Your task to perform on an android device: add a contact in the contacts app Image 0: 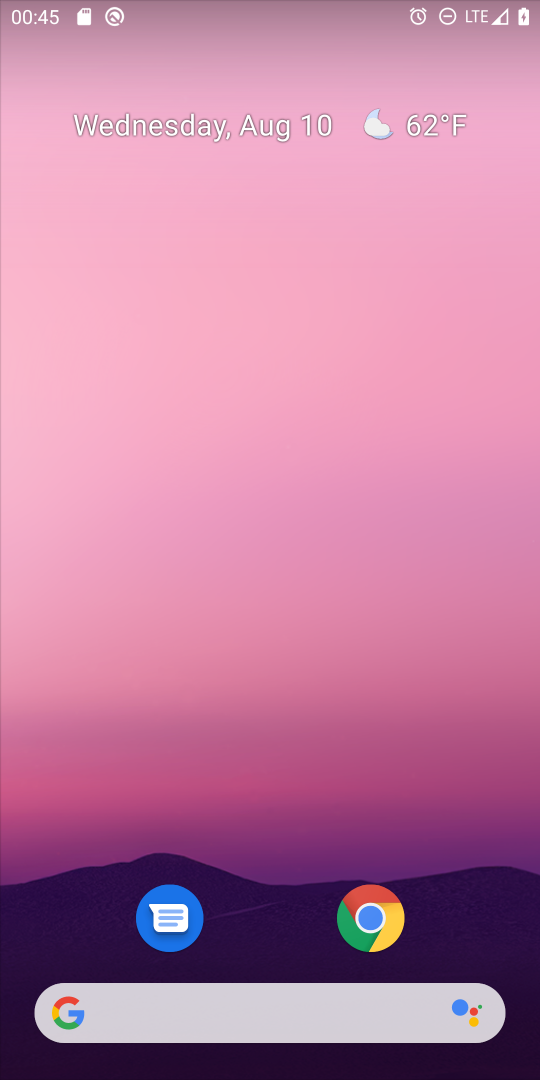
Step 0: drag from (253, 908) to (278, 241)
Your task to perform on an android device: add a contact in the contacts app Image 1: 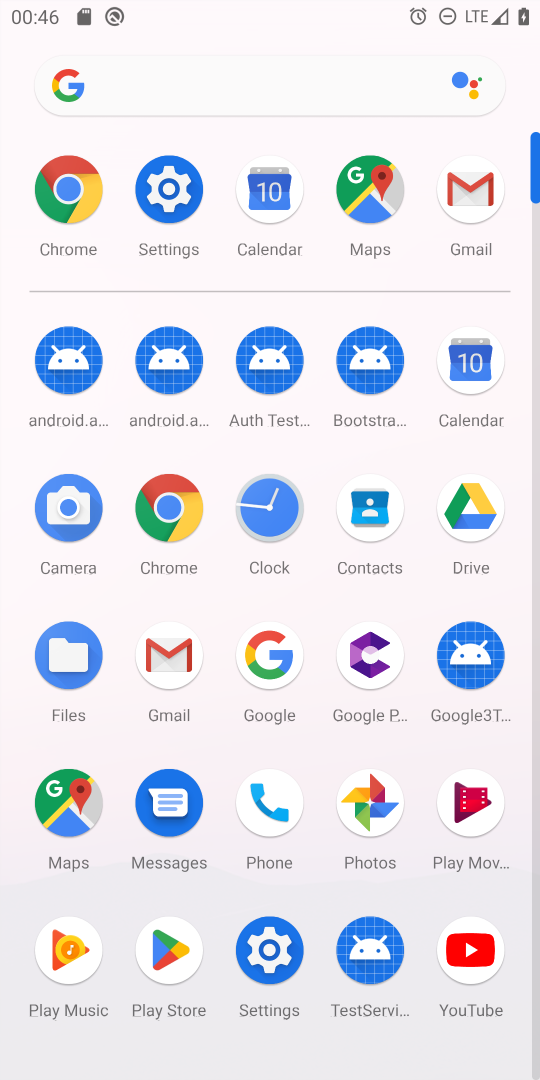
Step 1: click (369, 522)
Your task to perform on an android device: add a contact in the contacts app Image 2: 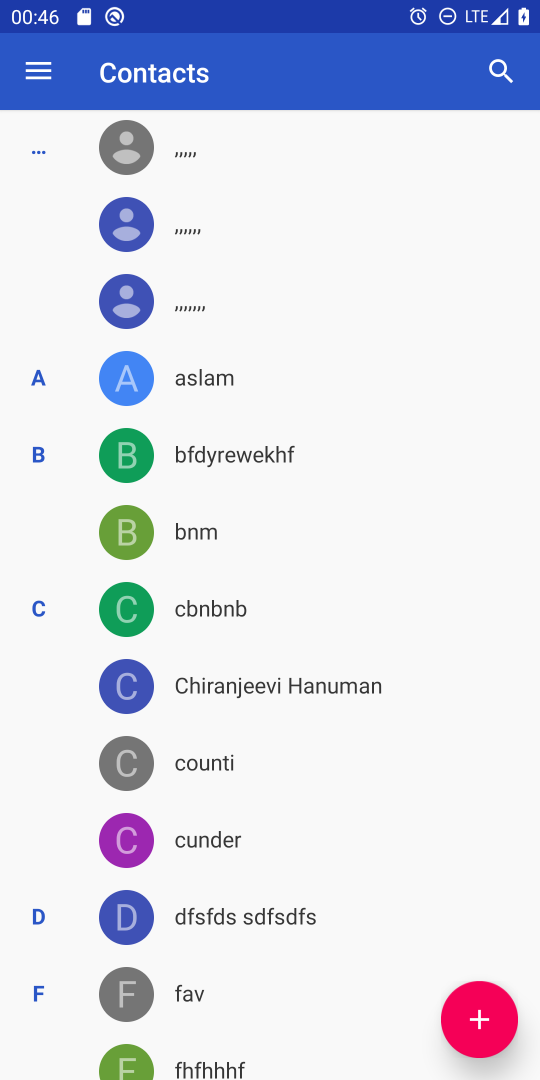
Step 2: click (499, 1009)
Your task to perform on an android device: add a contact in the contacts app Image 3: 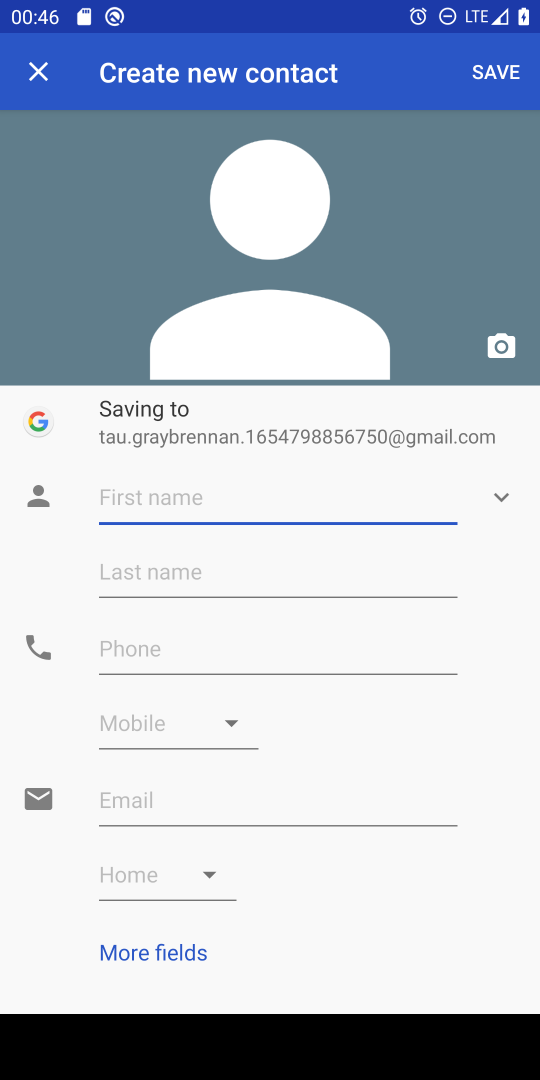
Step 3: type "post"
Your task to perform on an android device: add a contact in the contacts app Image 4: 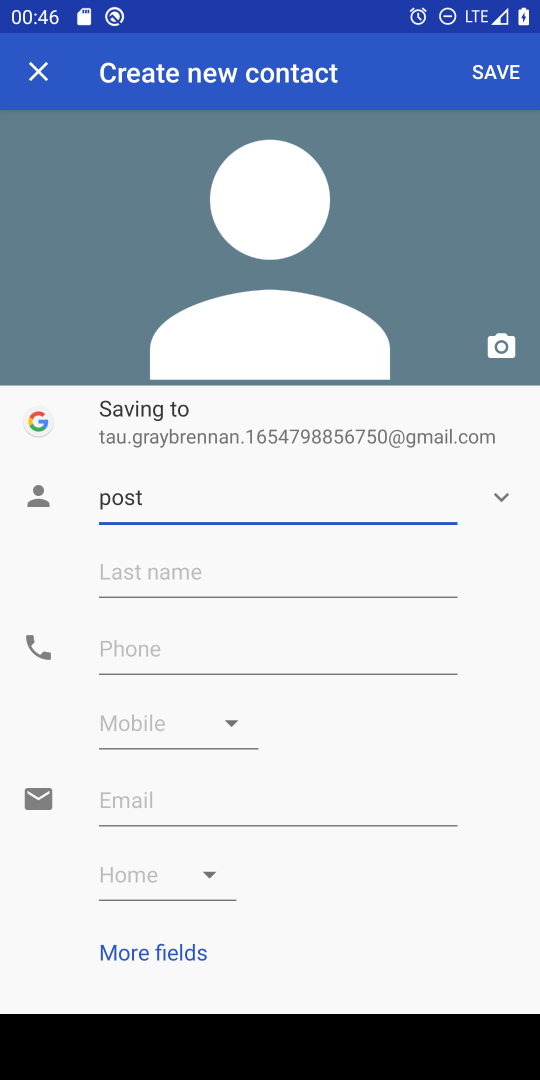
Step 4: click (517, 76)
Your task to perform on an android device: add a contact in the contacts app Image 5: 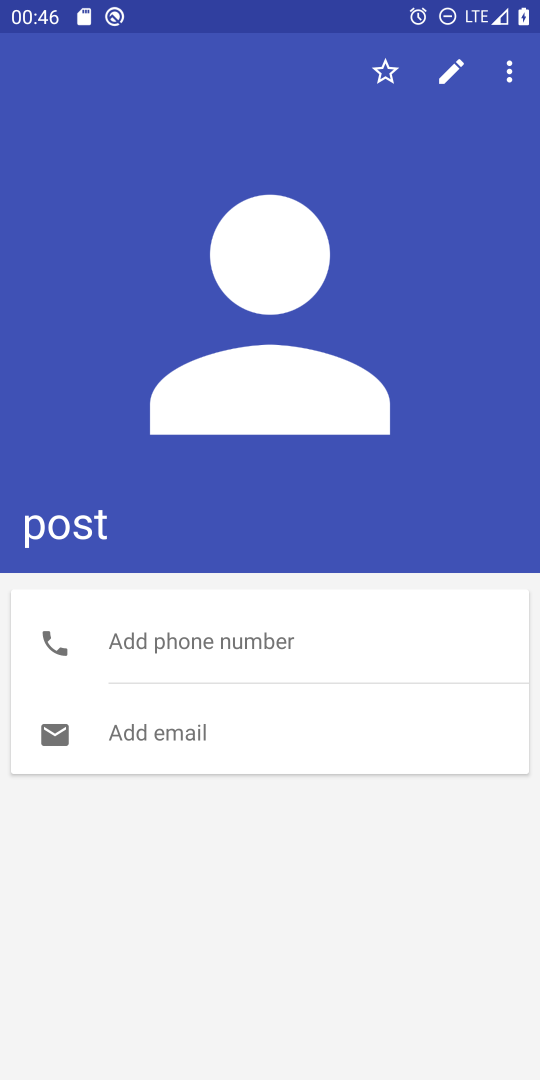
Step 5: task complete